Your task to perform on an android device: Open Chrome and go to the settings page Image 0: 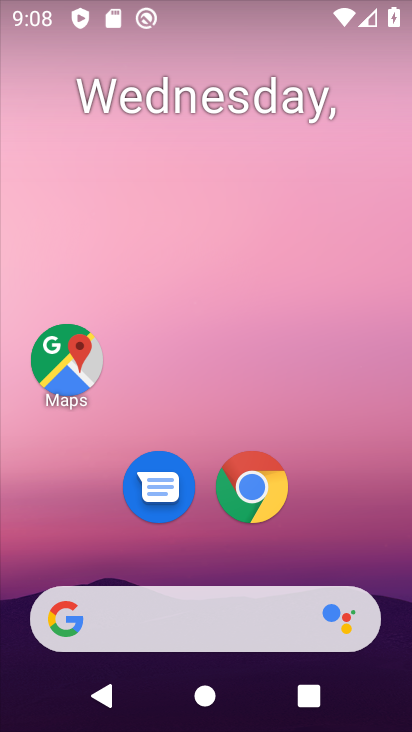
Step 0: click (234, 471)
Your task to perform on an android device: Open Chrome and go to the settings page Image 1: 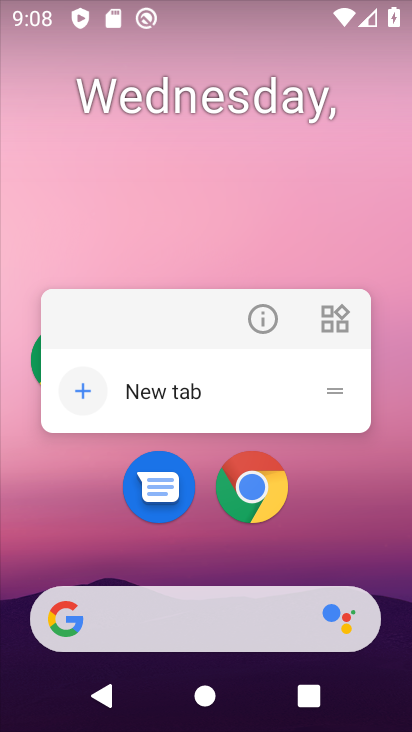
Step 1: click (270, 321)
Your task to perform on an android device: Open Chrome and go to the settings page Image 2: 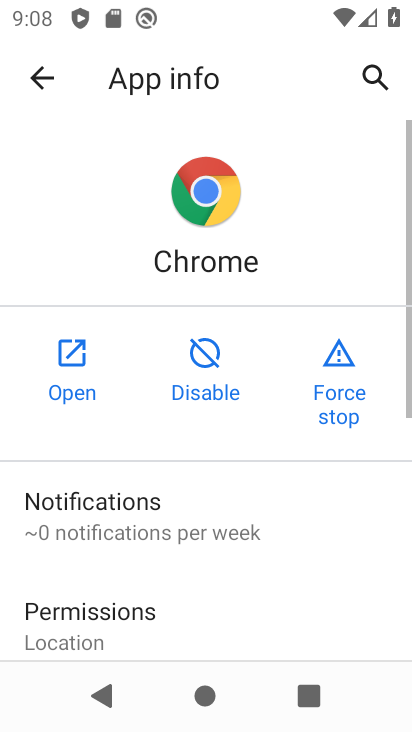
Step 2: click (86, 368)
Your task to perform on an android device: Open Chrome and go to the settings page Image 3: 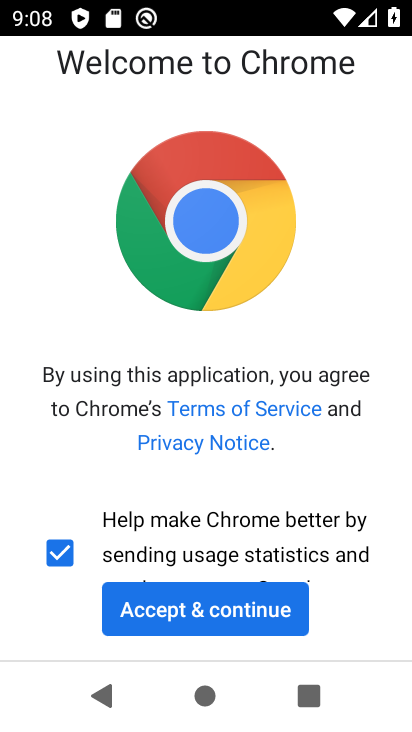
Step 3: click (251, 607)
Your task to perform on an android device: Open Chrome and go to the settings page Image 4: 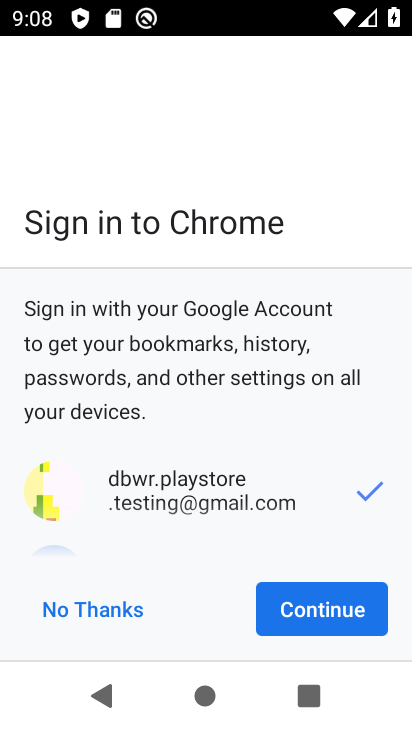
Step 4: click (98, 611)
Your task to perform on an android device: Open Chrome and go to the settings page Image 5: 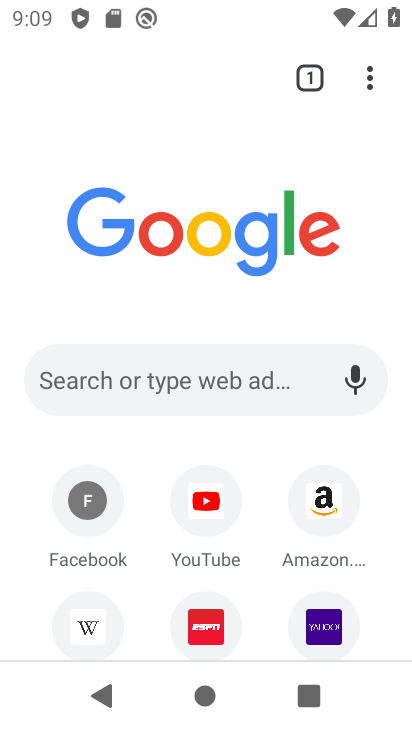
Step 5: click (369, 72)
Your task to perform on an android device: Open Chrome and go to the settings page Image 6: 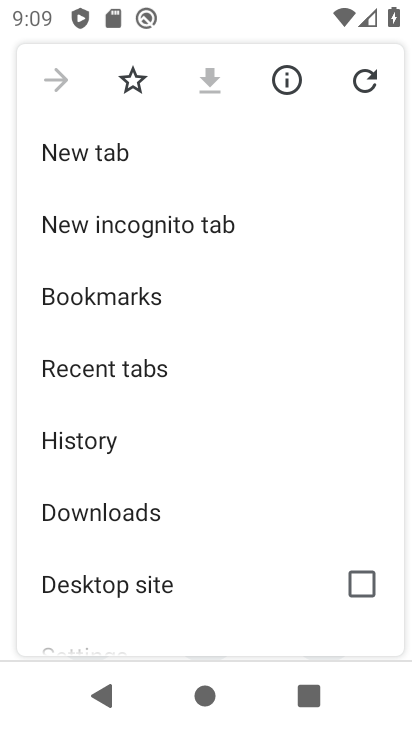
Step 6: drag from (179, 575) to (315, 209)
Your task to perform on an android device: Open Chrome and go to the settings page Image 7: 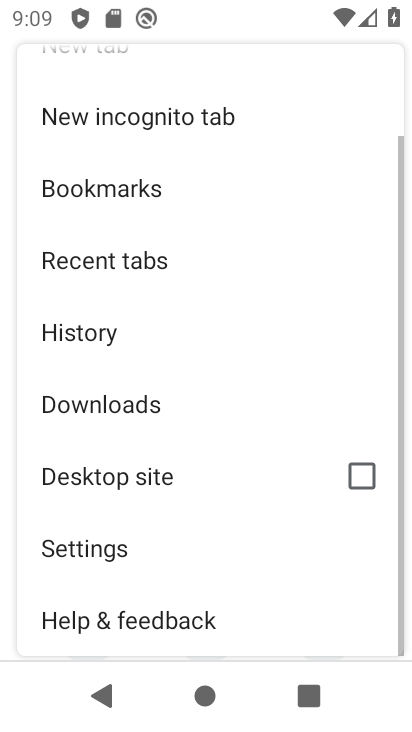
Step 7: click (130, 548)
Your task to perform on an android device: Open Chrome and go to the settings page Image 8: 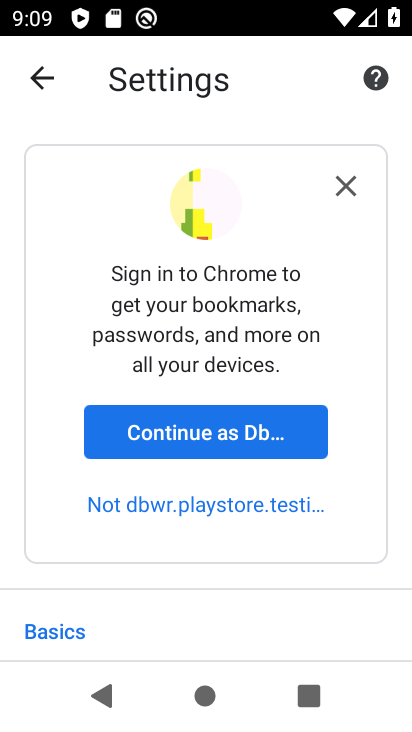
Step 8: task complete